Your task to perform on an android device: Set the phone to "Do not disturb". Image 0: 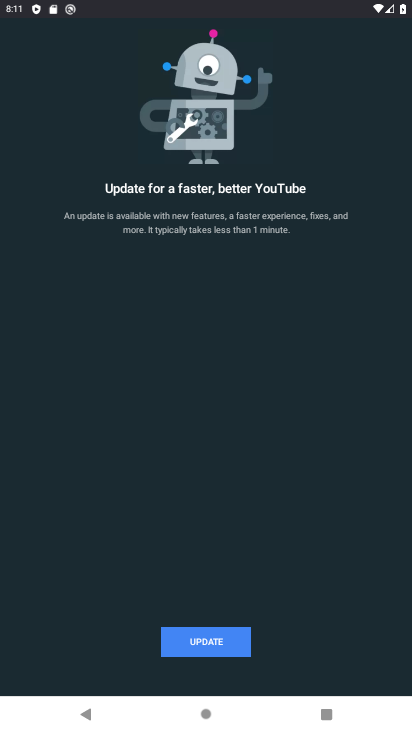
Step 0: press home button
Your task to perform on an android device: Set the phone to "Do not disturb". Image 1: 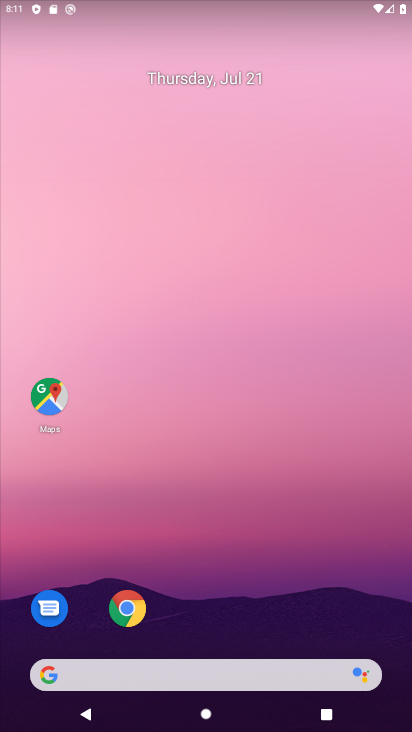
Step 1: drag from (41, 683) to (270, 122)
Your task to perform on an android device: Set the phone to "Do not disturb". Image 2: 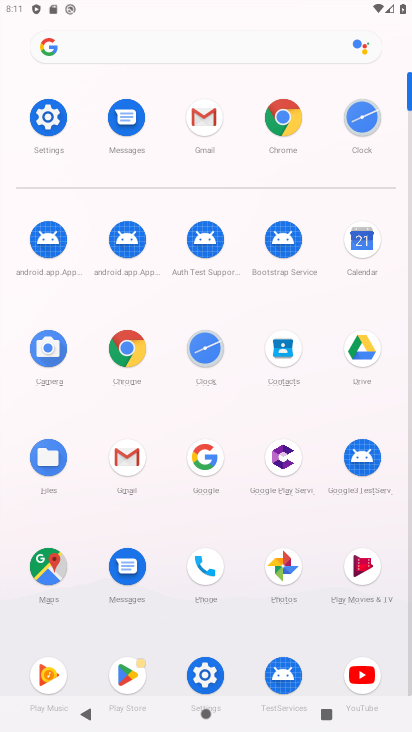
Step 2: click (207, 672)
Your task to perform on an android device: Set the phone to "Do not disturb". Image 3: 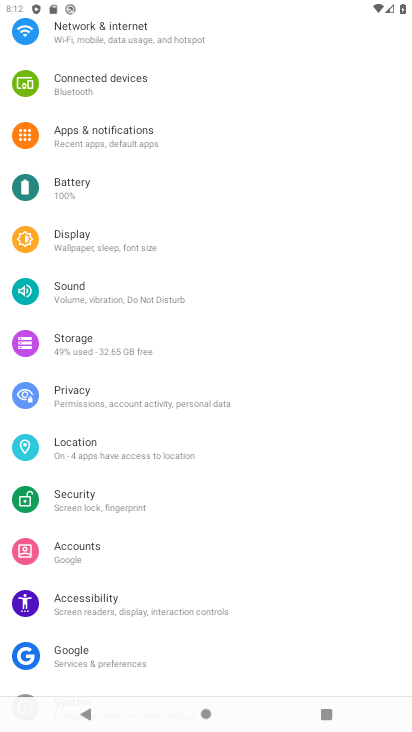
Step 3: click (151, 296)
Your task to perform on an android device: Set the phone to "Do not disturb". Image 4: 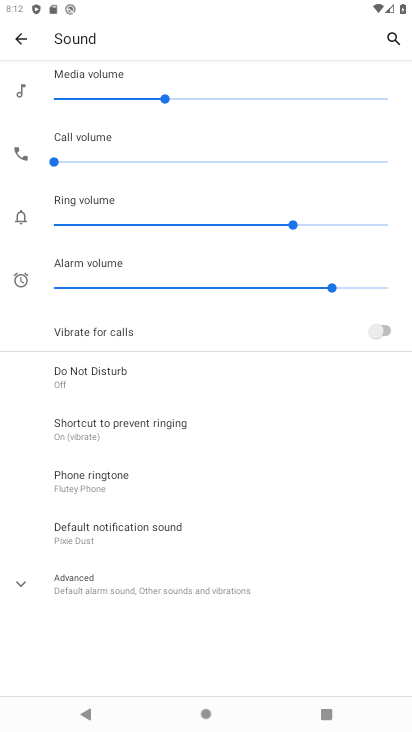
Step 4: click (70, 385)
Your task to perform on an android device: Set the phone to "Do not disturb". Image 5: 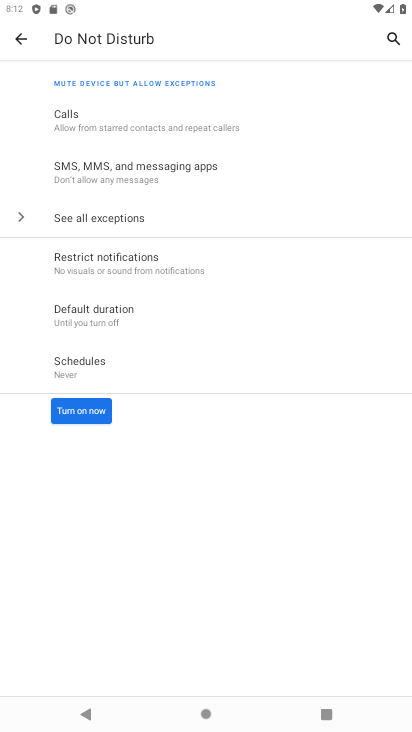
Step 5: click (86, 410)
Your task to perform on an android device: Set the phone to "Do not disturb". Image 6: 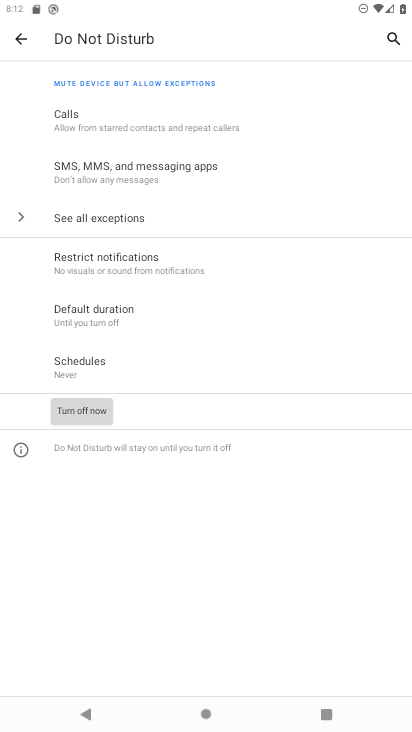
Step 6: click (91, 412)
Your task to perform on an android device: Set the phone to "Do not disturb". Image 7: 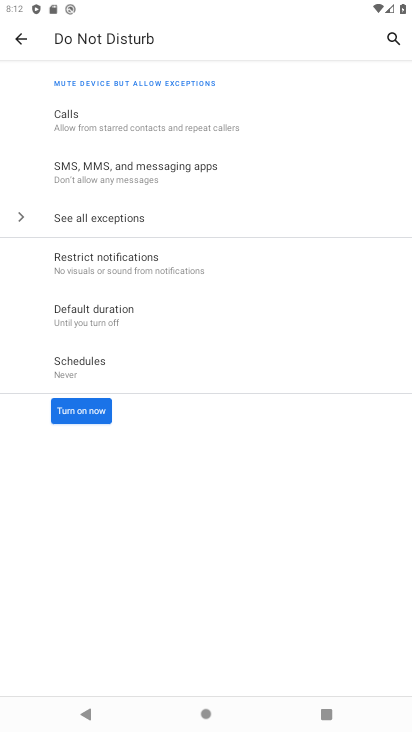
Step 7: task complete